Your task to perform on an android device: check android version Image 0: 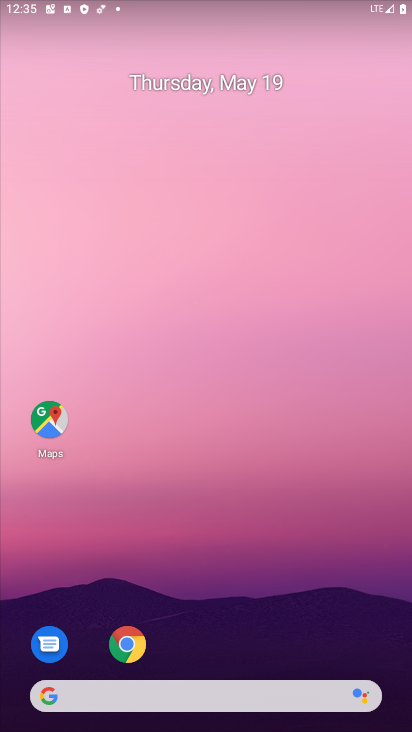
Step 0: drag from (324, 627) to (254, 99)
Your task to perform on an android device: check android version Image 1: 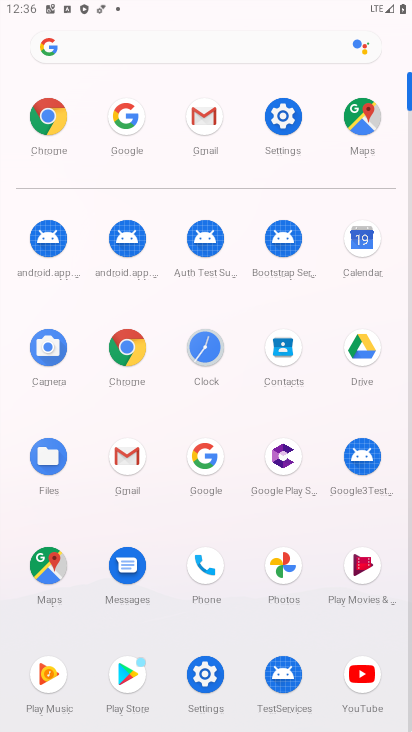
Step 1: click (190, 672)
Your task to perform on an android device: check android version Image 2: 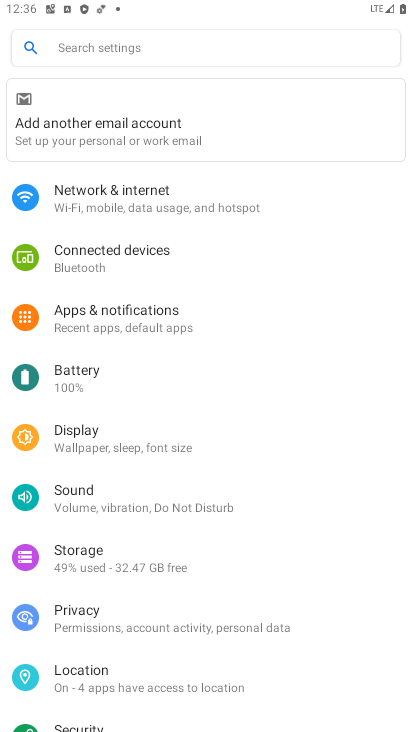
Step 2: drag from (182, 680) to (254, 238)
Your task to perform on an android device: check android version Image 3: 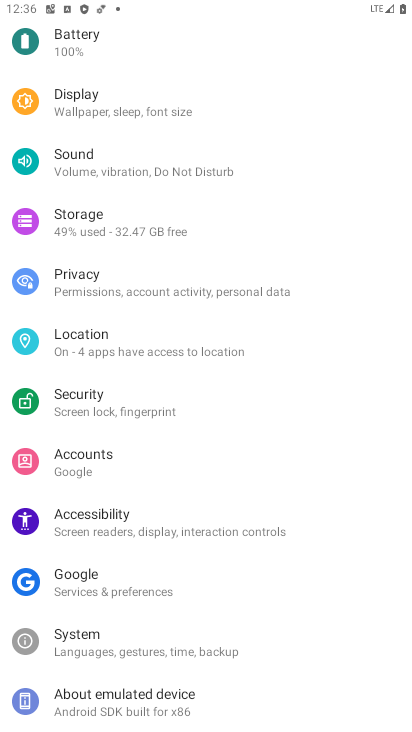
Step 3: click (176, 699)
Your task to perform on an android device: check android version Image 4: 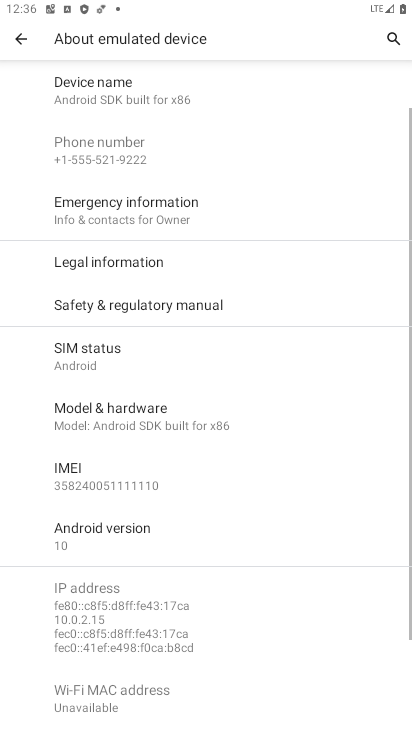
Step 4: click (155, 537)
Your task to perform on an android device: check android version Image 5: 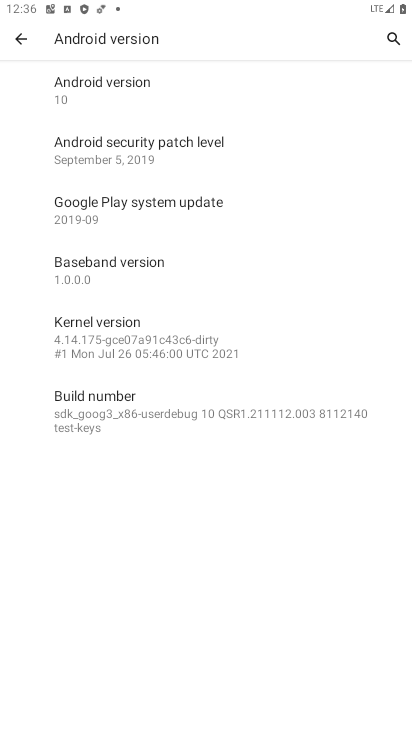
Step 5: task complete